Your task to perform on an android device: Go to Amazon Image 0: 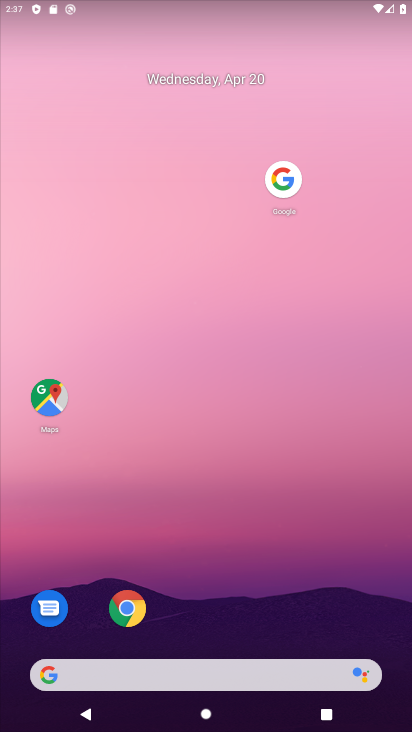
Step 0: drag from (311, 619) to (348, 122)
Your task to perform on an android device: Go to Amazon Image 1: 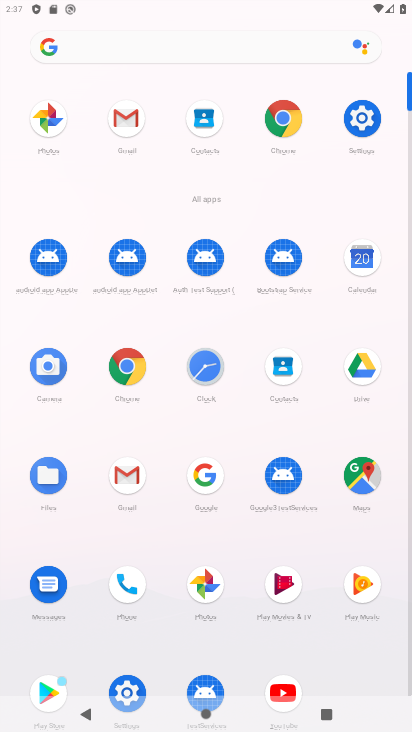
Step 1: click (129, 368)
Your task to perform on an android device: Go to Amazon Image 2: 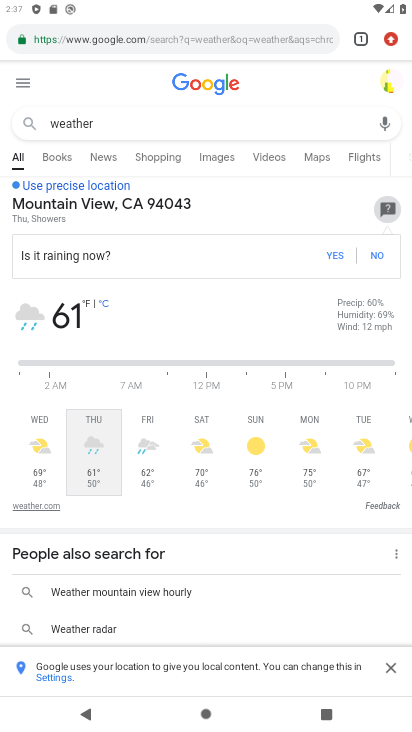
Step 2: click (273, 35)
Your task to perform on an android device: Go to Amazon Image 3: 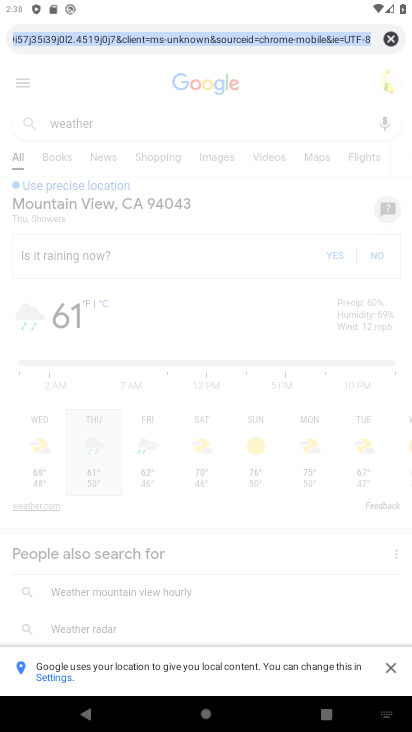
Step 3: type "amazone"
Your task to perform on an android device: Go to Amazon Image 4: 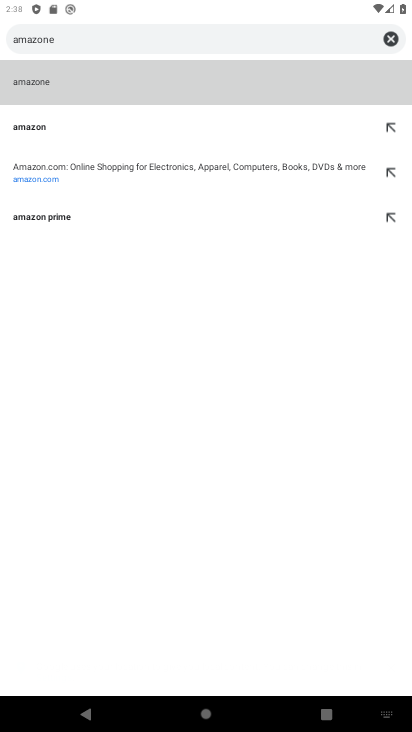
Step 4: click (87, 131)
Your task to perform on an android device: Go to Amazon Image 5: 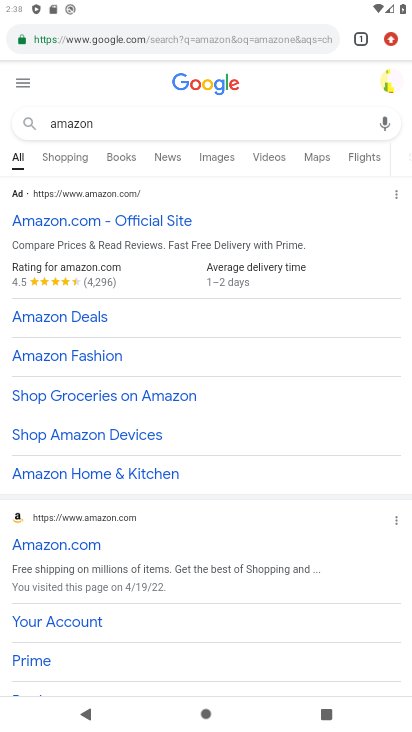
Step 5: task complete